Your task to perform on an android device: add a label to a message in the gmail app Image 0: 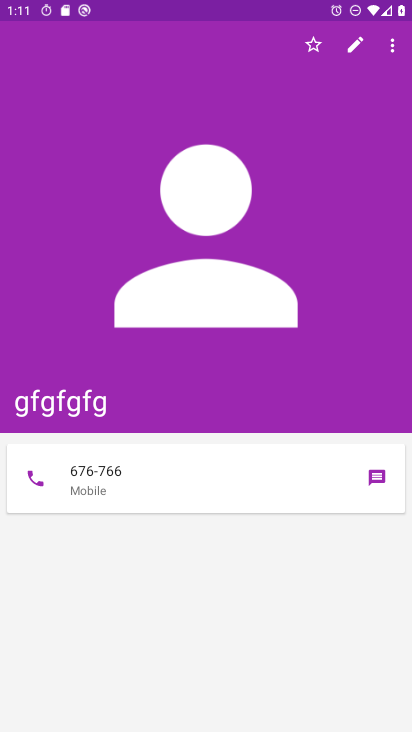
Step 0: press home button
Your task to perform on an android device: add a label to a message in the gmail app Image 1: 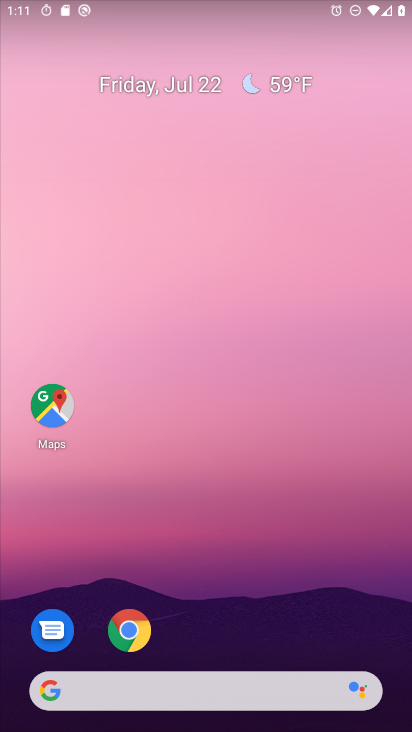
Step 1: drag from (199, 623) to (213, 113)
Your task to perform on an android device: add a label to a message in the gmail app Image 2: 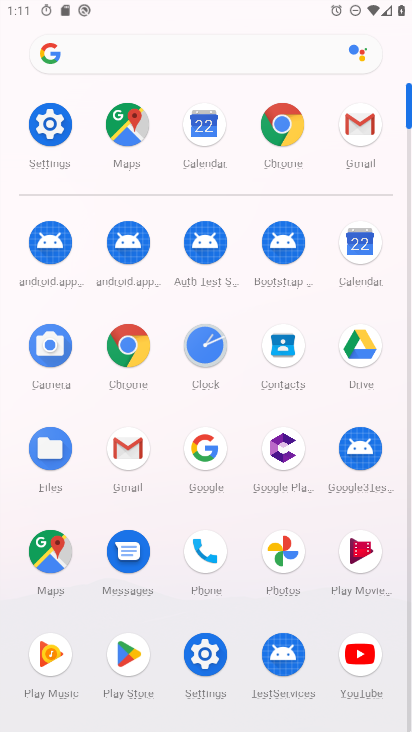
Step 2: click (355, 125)
Your task to perform on an android device: add a label to a message in the gmail app Image 3: 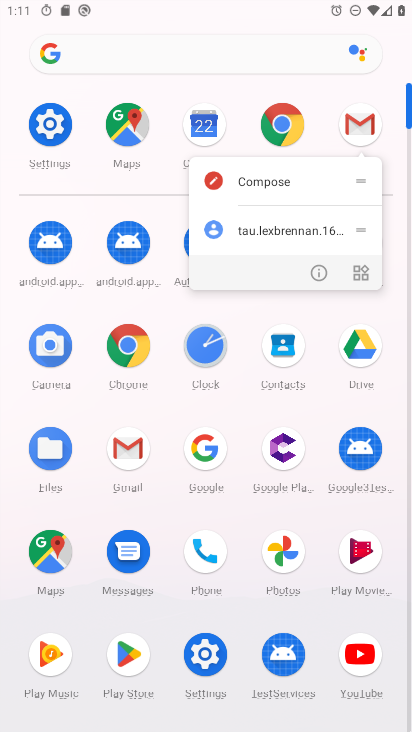
Step 3: click (355, 125)
Your task to perform on an android device: add a label to a message in the gmail app Image 4: 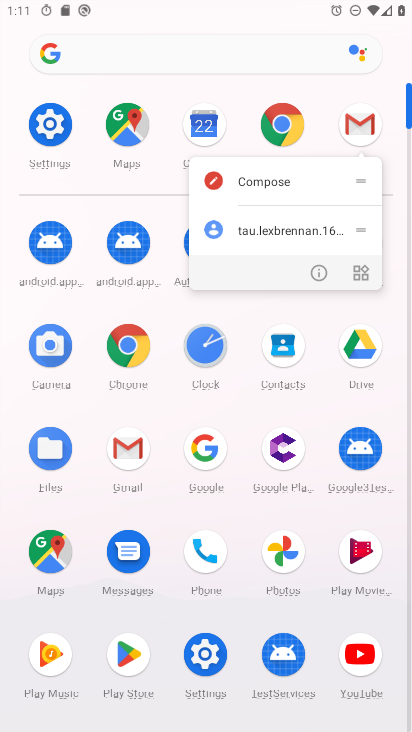
Step 4: click (355, 125)
Your task to perform on an android device: add a label to a message in the gmail app Image 5: 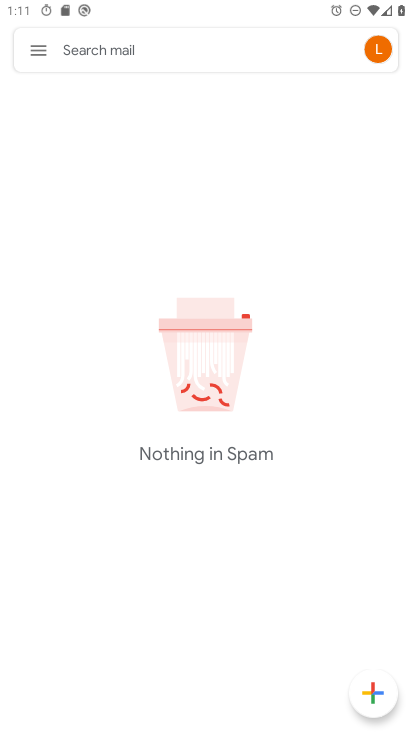
Step 5: click (33, 54)
Your task to perform on an android device: add a label to a message in the gmail app Image 6: 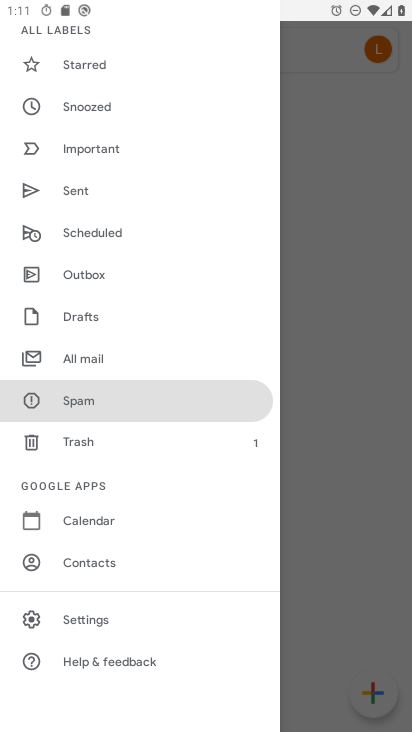
Step 6: click (97, 357)
Your task to perform on an android device: add a label to a message in the gmail app Image 7: 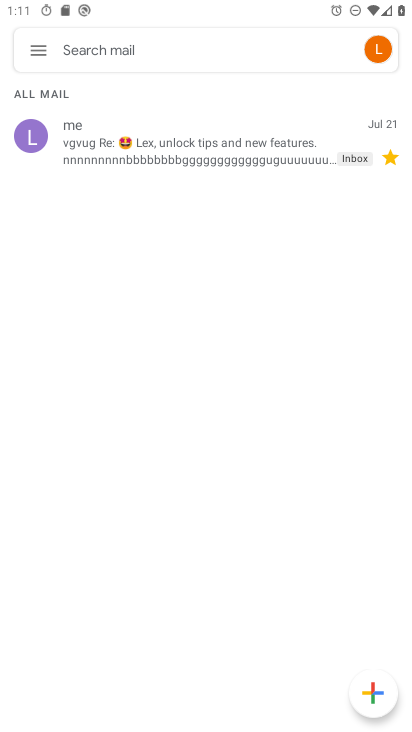
Step 7: click (155, 154)
Your task to perform on an android device: add a label to a message in the gmail app Image 8: 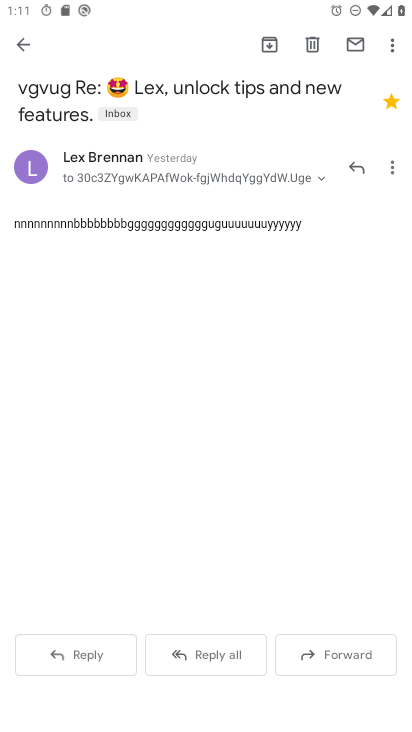
Step 8: click (392, 55)
Your task to perform on an android device: add a label to a message in the gmail app Image 9: 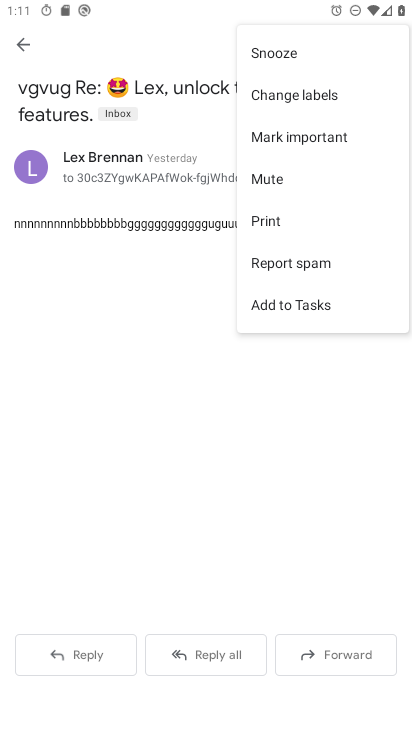
Step 9: click (309, 98)
Your task to perform on an android device: add a label to a message in the gmail app Image 10: 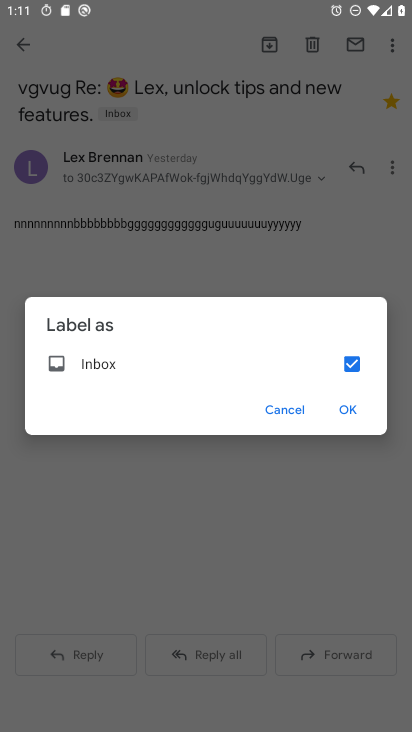
Step 10: click (344, 410)
Your task to perform on an android device: add a label to a message in the gmail app Image 11: 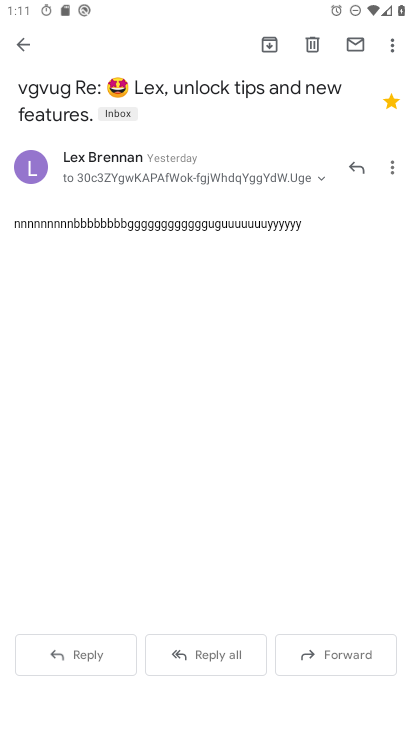
Step 11: task complete